Your task to perform on an android device: See recent photos Image 0: 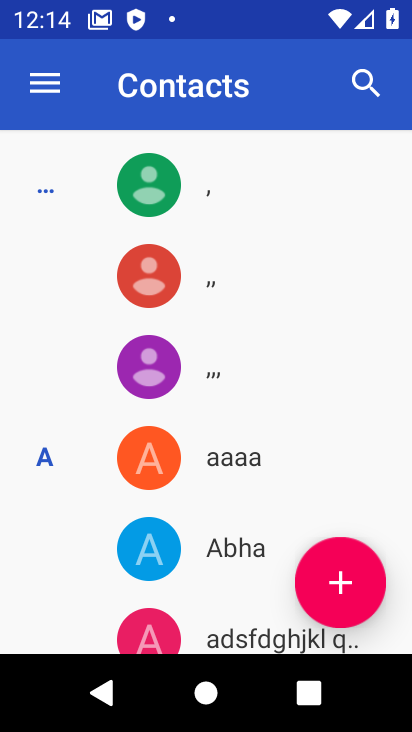
Step 0: press home button
Your task to perform on an android device: See recent photos Image 1: 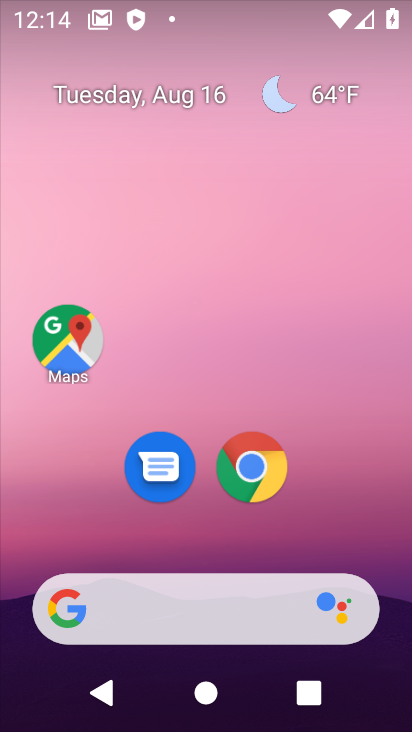
Step 1: drag from (344, 524) to (347, 129)
Your task to perform on an android device: See recent photos Image 2: 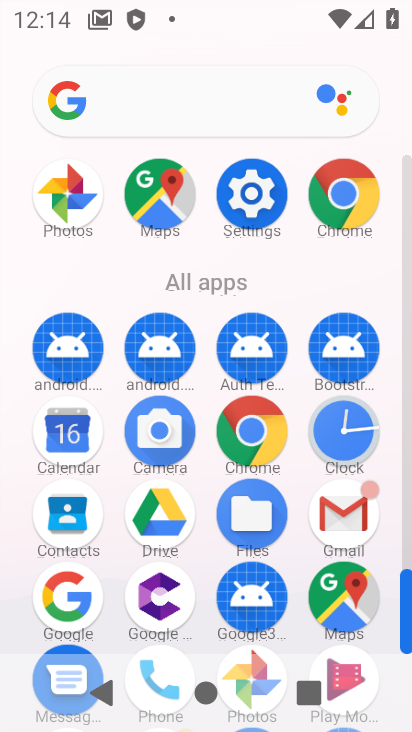
Step 2: drag from (396, 524) to (397, 295)
Your task to perform on an android device: See recent photos Image 3: 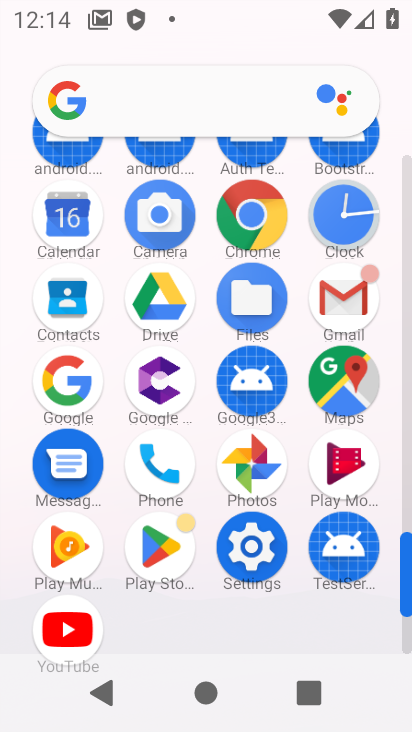
Step 3: click (247, 457)
Your task to perform on an android device: See recent photos Image 4: 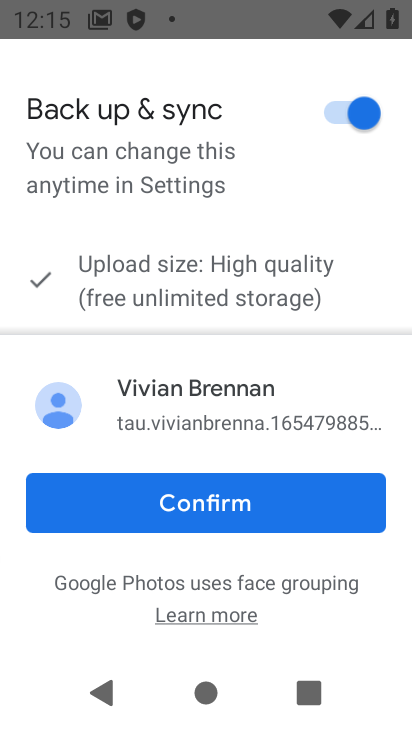
Step 4: click (218, 498)
Your task to perform on an android device: See recent photos Image 5: 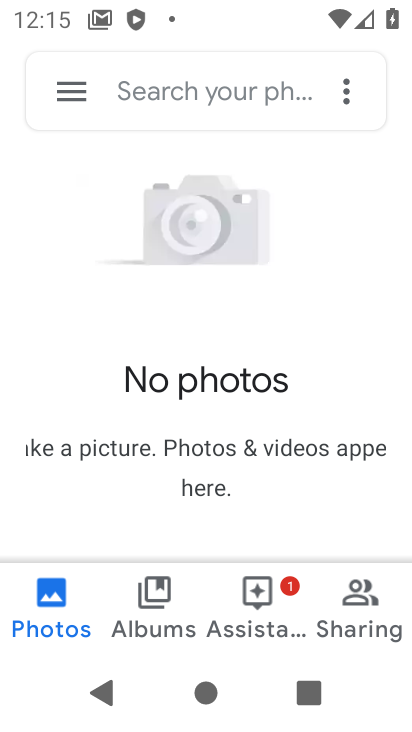
Step 5: task complete